Your task to perform on an android device: Is it going to rain today? Image 0: 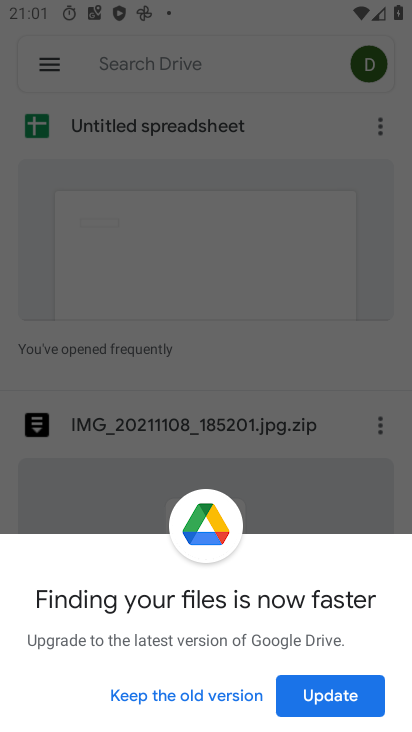
Step 0: press home button
Your task to perform on an android device: Is it going to rain today? Image 1: 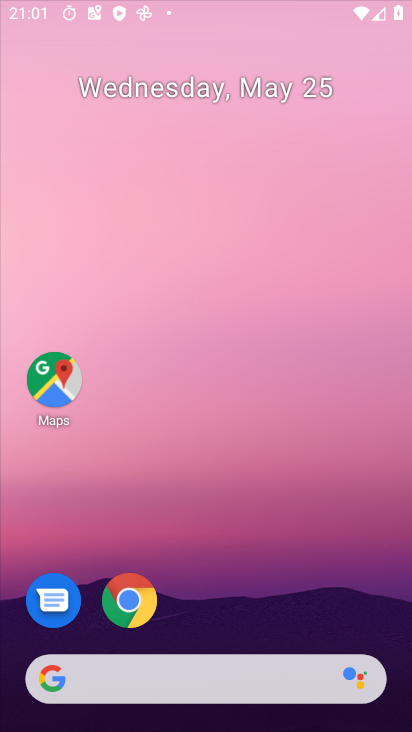
Step 1: drag from (386, 603) to (298, 108)
Your task to perform on an android device: Is it going to rain today? Image 2: 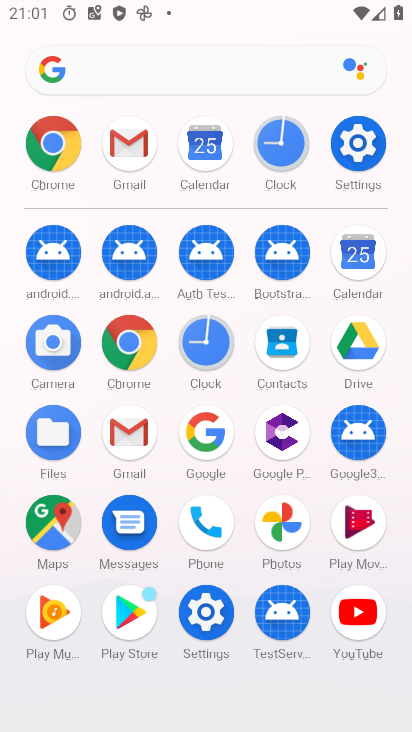
Step 2: click (127, 350)
Your task to perform on an android device: Is it going to rain today? Image 3: 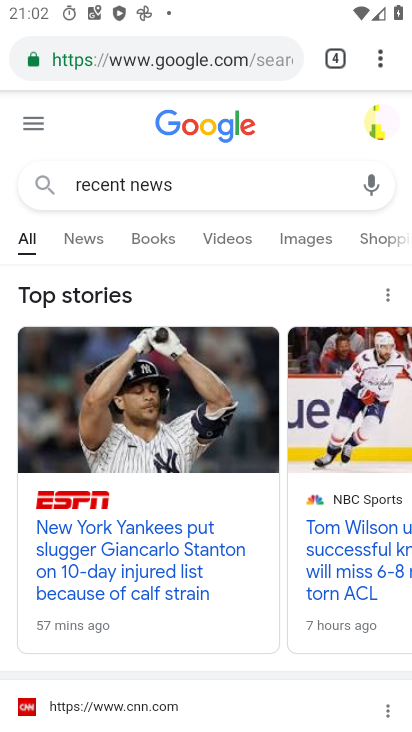
Step 3: click (215, 62)
Your task to perform on an android device: Is it going to rain today? Image 4: 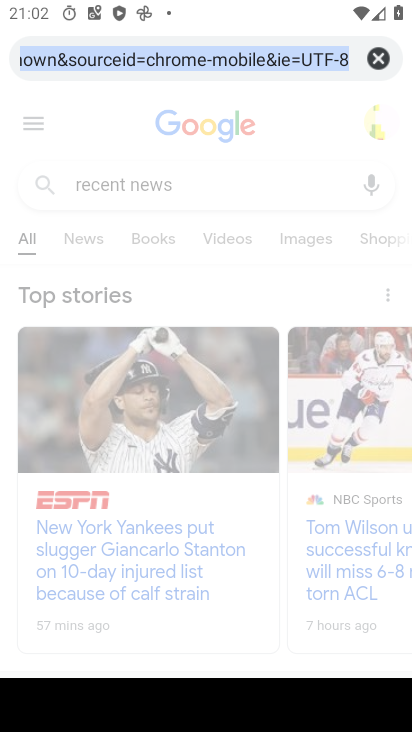
Step 4: click (375, 53)
Your task to perform on an android device: Is it going to rain today? Image 5: 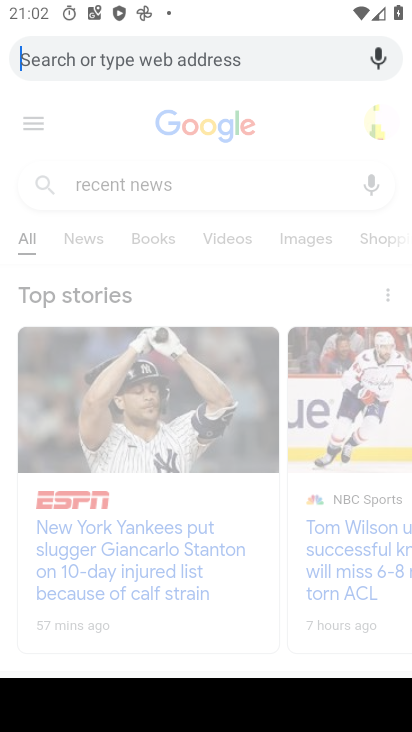
Step 5: type "is it going to rain today"
Your task to perform on an android device: Is it going to rain today? Image 6: 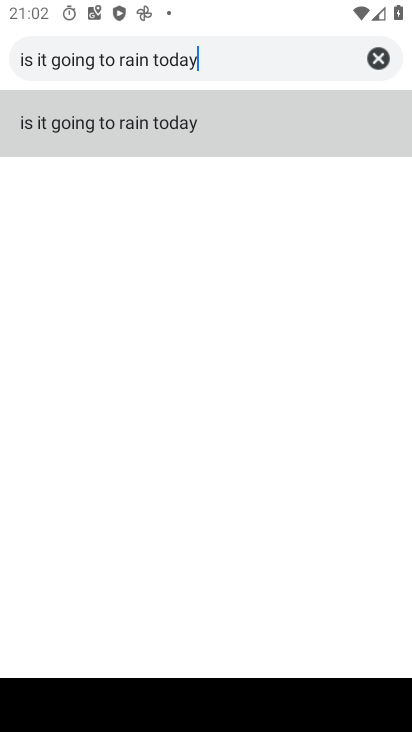
Step 6: click (156, 136)
Your task to perform on an android device: Is it going to rain today? Image 7: 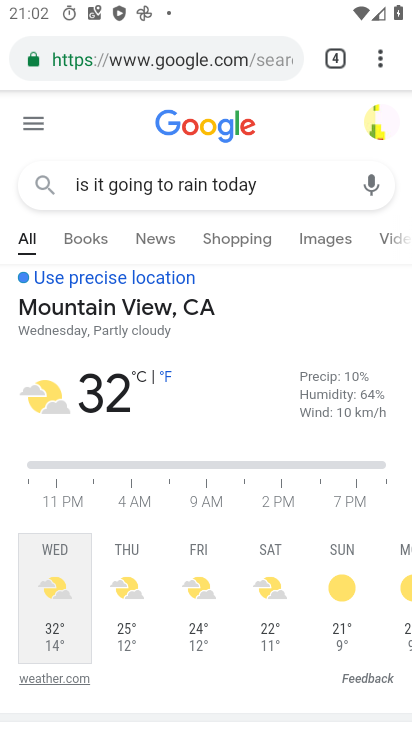
Step 7: task complete